Your task to perform on an android device: Open calendar and show me the third week of next month Image 0: 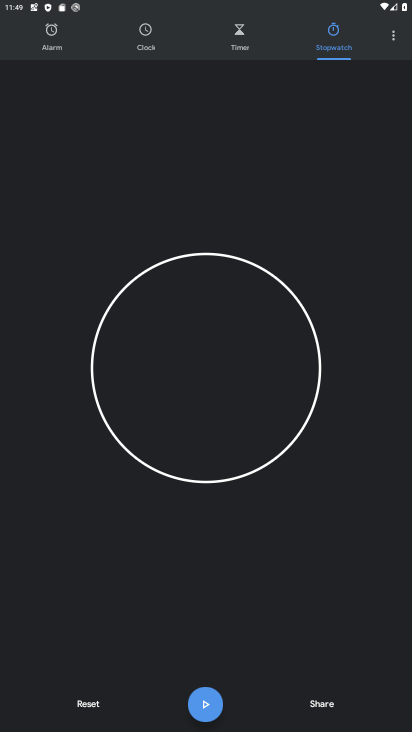
Step 0: press home button
Your task to perform on an android device: Open calendar and show me the third week of next month Image 1: 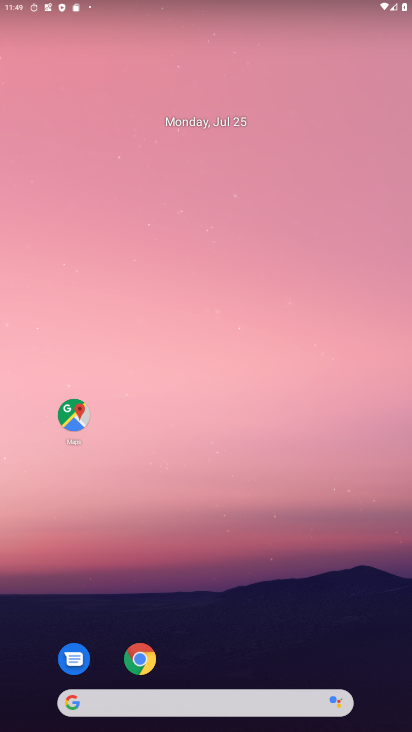
Step 1: drag from (191, 654) to (209, 65)
Your task to perform on an android device: Open calendar and show me the third week of next month Image 2: 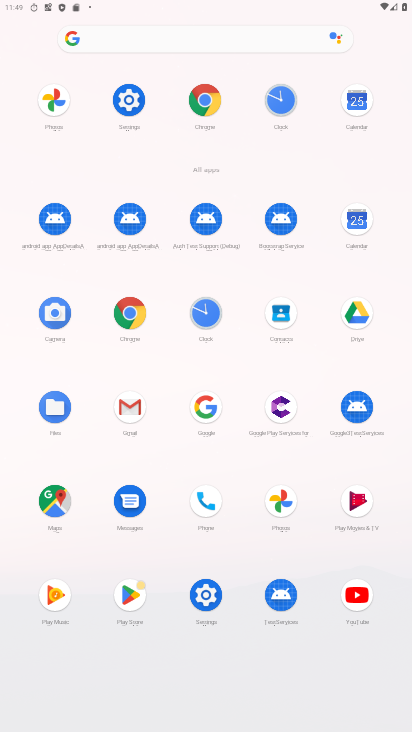
Step 2: click (350, 234)
Your task to perform on an android device: Open calendar and show me the third week of next month Image 3: 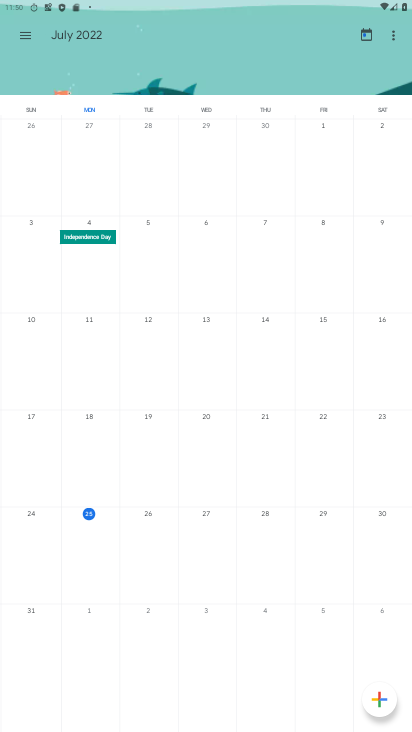
Step 3: click (97, 27)
Your task to perform on an android device: Open calendar and show me the third week of next month Image 4: 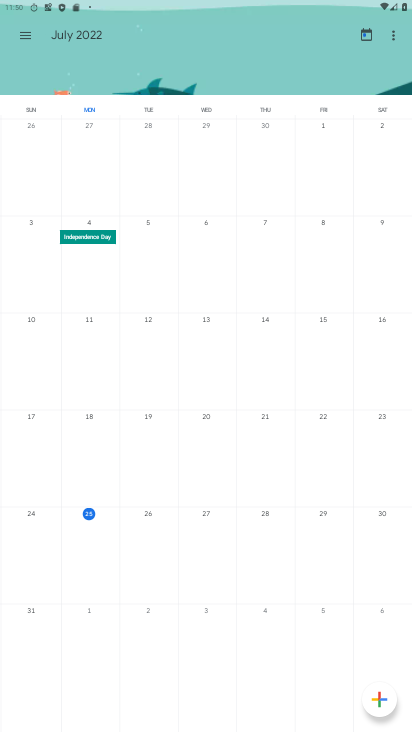
Step 4: drag from (343, 271) to (12, 392)
Your task to perform on an android device: Open calendar and show me the third week of next month Image 5: 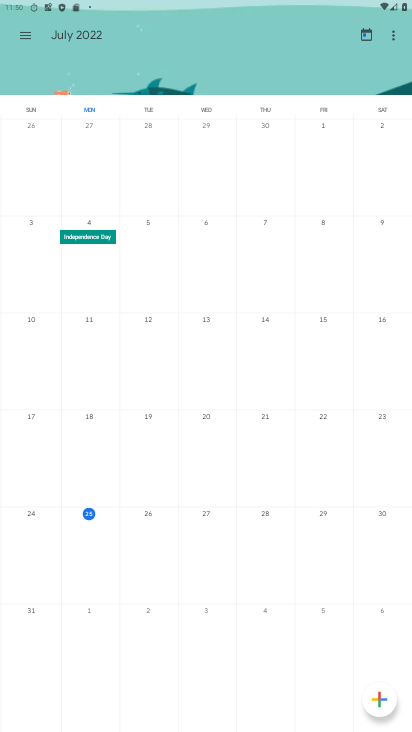
Step 5: drag from (370, 309) to (13, 375)
Your task to perform on an android device: Open calendar and show me the third week of next month Image 6: 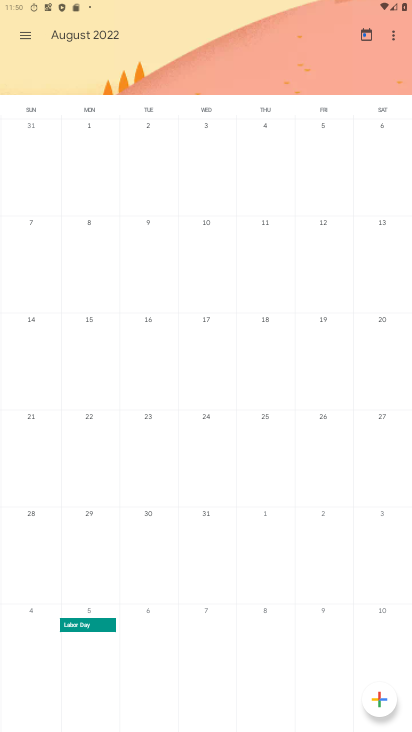
Step 6: click (21, 37)
Your task to perform on an android device: Open calendar and show me the third week of next month Image 7: 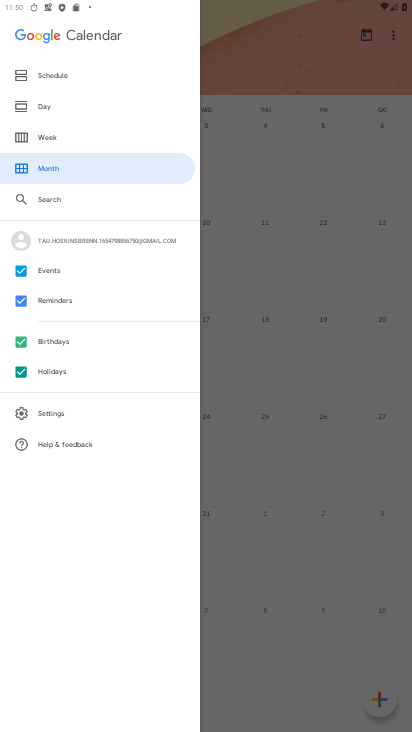
Step 7: click (49, 138)
Your task to perform on an android device: Open calendar and show me the third week of next month Image 8: 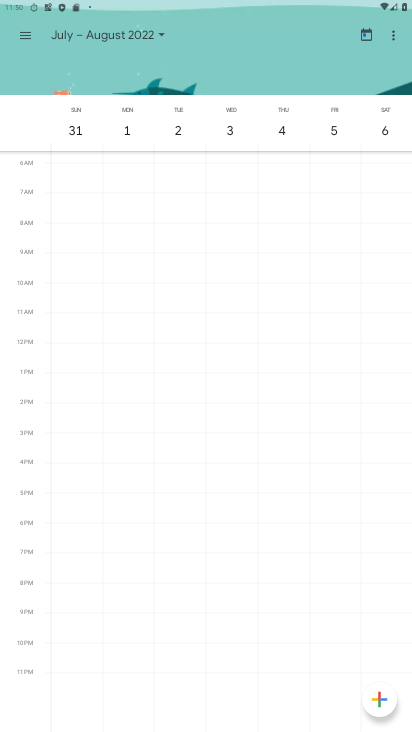
Step 8: click (74, 35)
Your task to perform on an android device: Open calendar and show me the third week of next month Image 9: 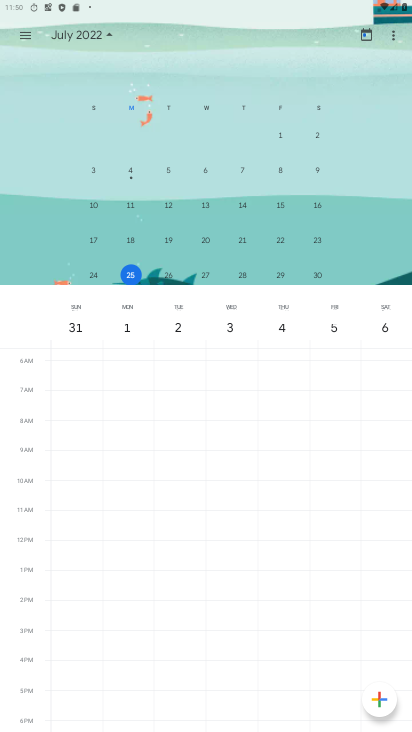
Step 9: click (93, 207)
Your task to perform on an android device: Open calendar and show me the third week of next month Image 10: 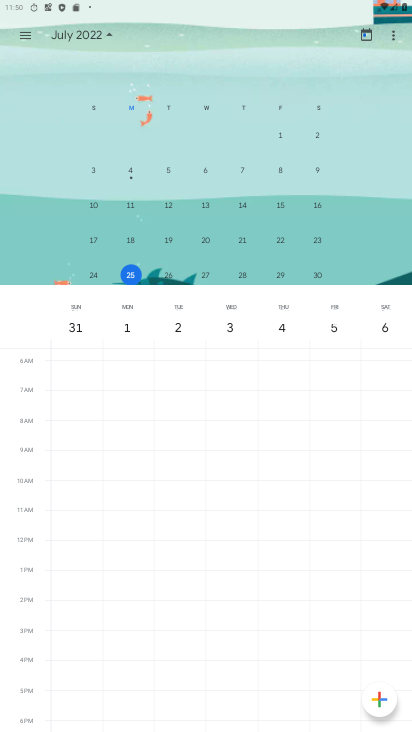
Step 10: click (93, 207)
Your task to perform on an android device: Open calendar and show me the third week of next month Image 11: 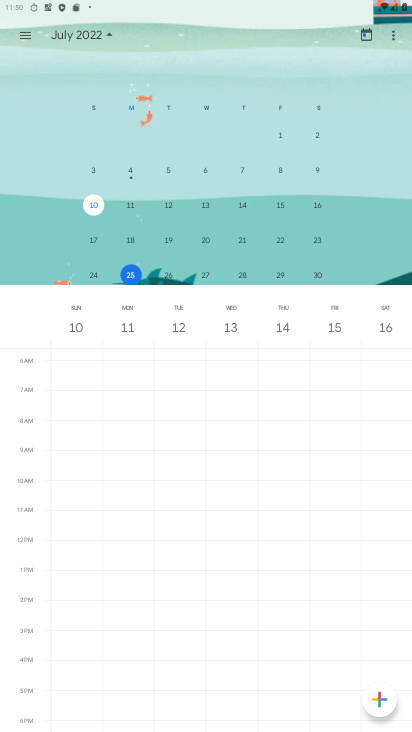
Step 11: task complete